Your task to perform on an android device: turn off sleep mode Image 0: 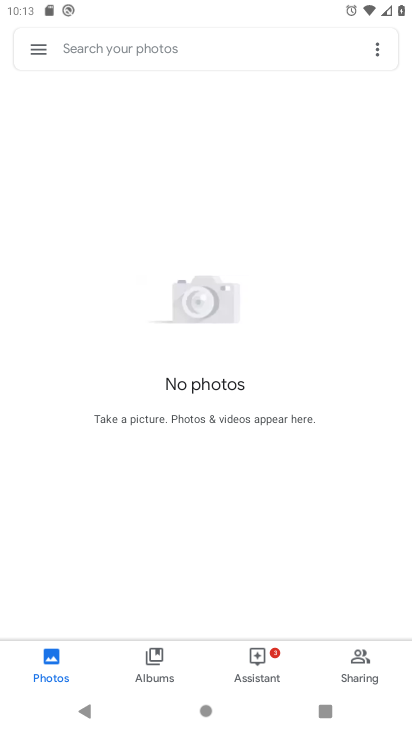
Step 0: press back button
Your task to perform on an android device: turn off sleep mode Image 1: 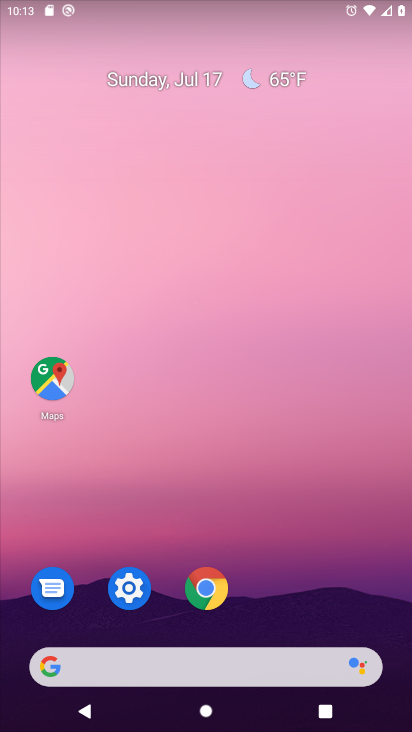
Step 1: drag from (263, 632) to (256, 72)
Your task to perform on an android device: turn off sleep mode Image 2: 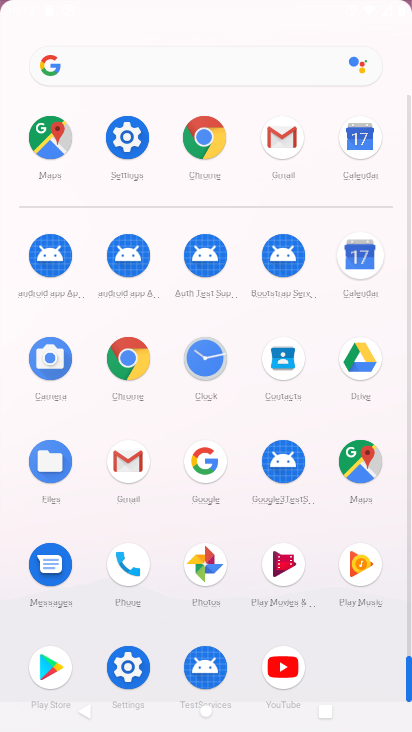
Step 2: drag from (162, 367) to (74, 68)
Your task to perform on an android device: turn off sleep mode Image 3: 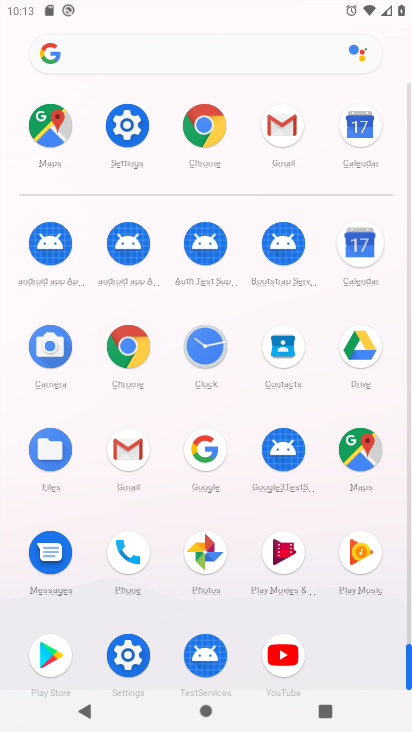
Step 3: click (126, 126)
Your task to perform on an android device: turn off sleep mode Image 4: 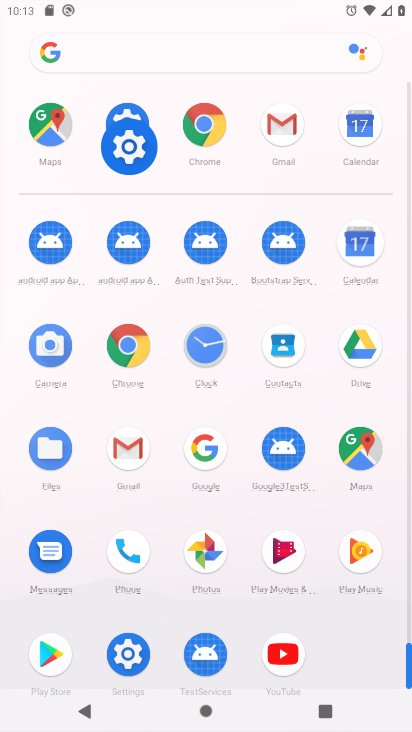
Step 4: click (126, 126)
Your task to perform on an android device: turn off sleep mode Image 5: 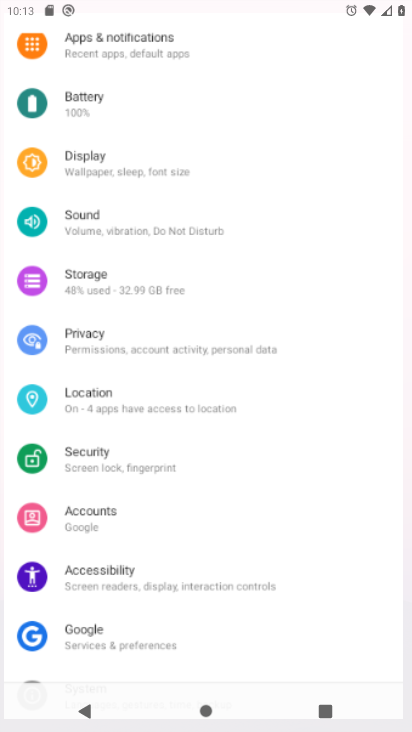
Step 5: click (127, 127)
Your task to perform on an android device: turn off sleep mode Image 6: 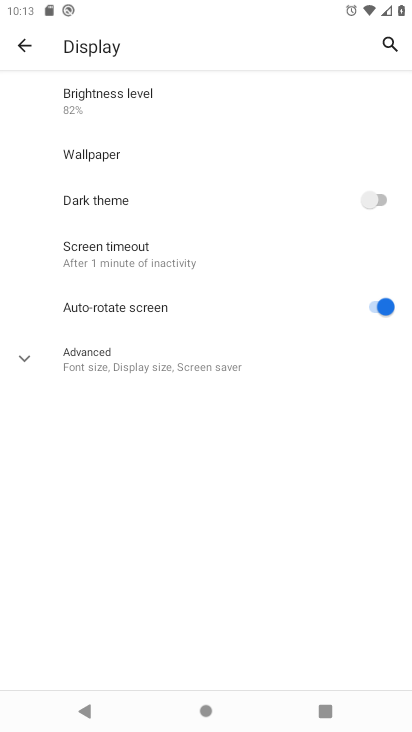
Step 6: click (18, 46)
Your task to perform on an android device: turn off sleep mode Image 7: 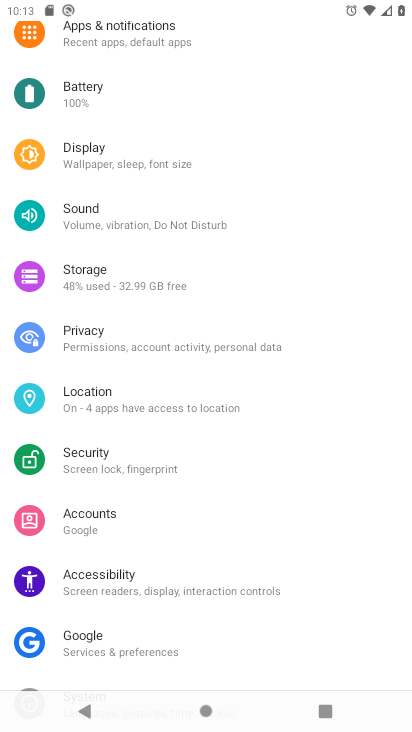
Step 7: click (111, 158)
Your task to perform on an android device: turn off sleep mode Image 8: 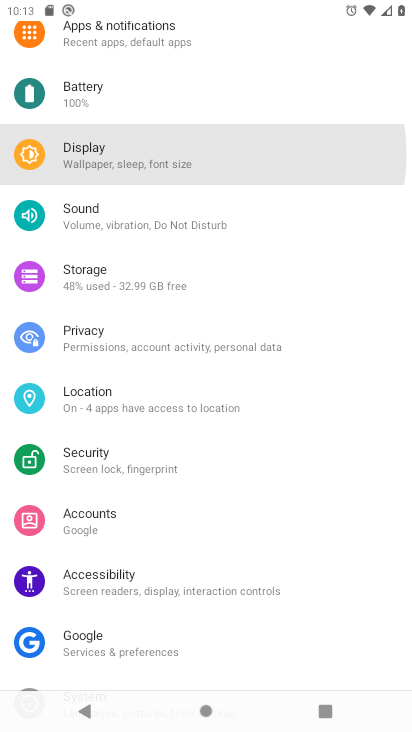
Step 8: click (110, 158)
Your task to perform on an android device: turn off sleep mode Image 9: 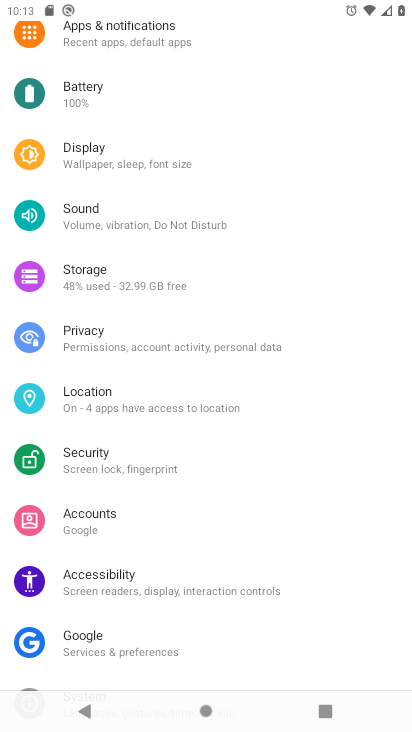
Step 9: click (110, 158)
Your task to perform on an android device: turn off sleep mode Image 10: 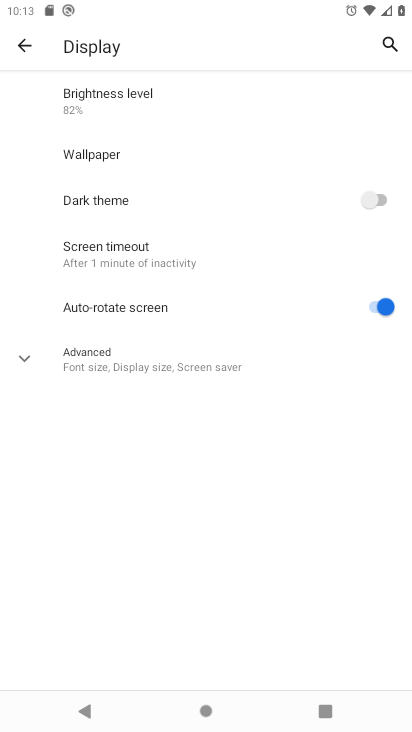
Step 10: click (20, 42)
Your task to perform on an android device: turn off sleep mode Image 11: 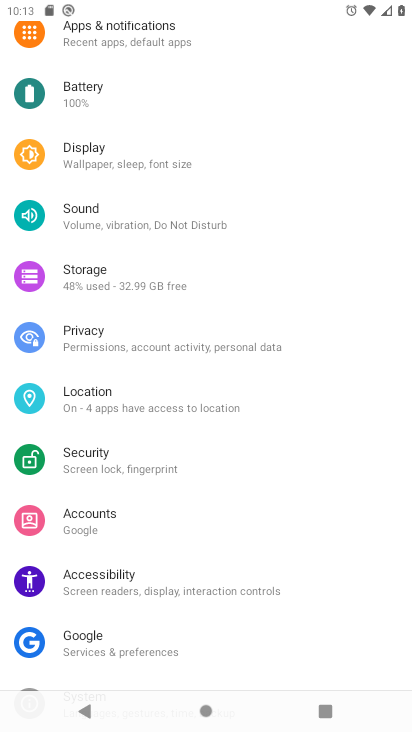
Step 11: click (90, 155)
Your task to perform on an android device: turn off sleep mode Image 12: 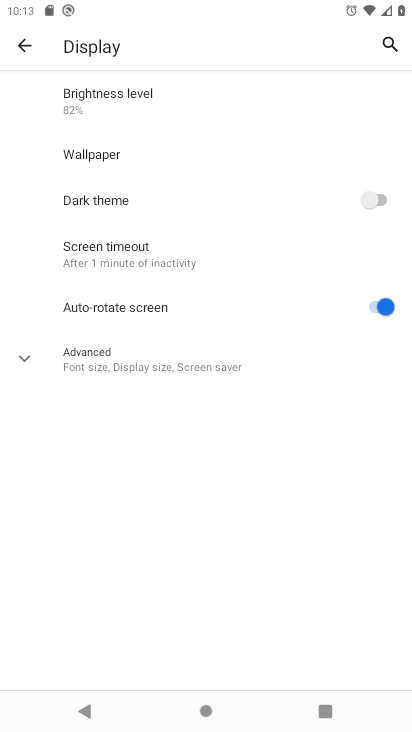
Step 12: click (26, 42)
Your task to perform on an android device: turn off sleep mode Image 13: 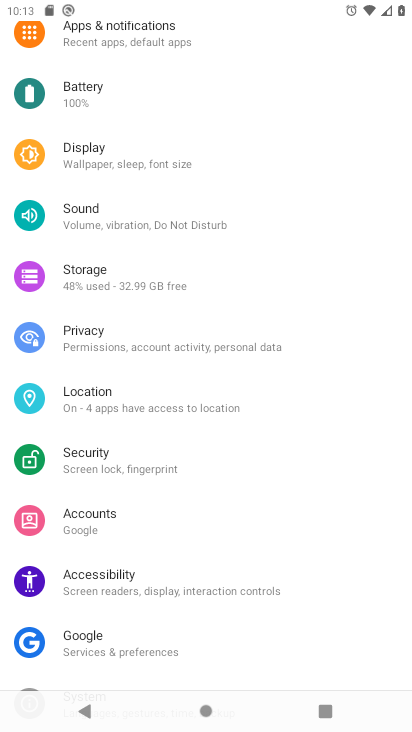
Step 13: click (105, 160)
Your task to perform on an android device: turn off sleep mode Image 14: 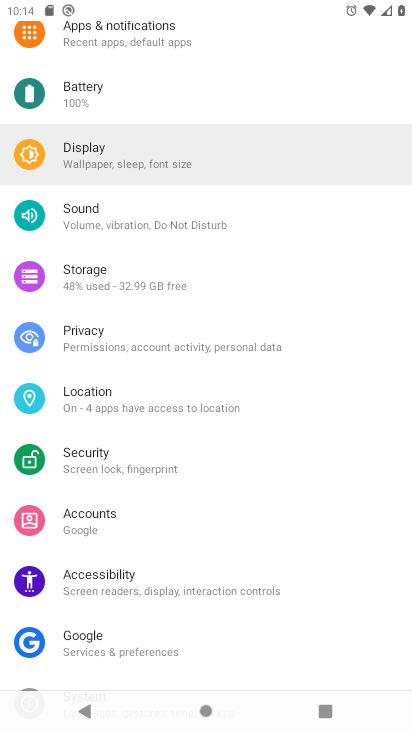
Step 14: click (105, 159)
Your task to perform on an android device: turn off sleep mode Image 15: 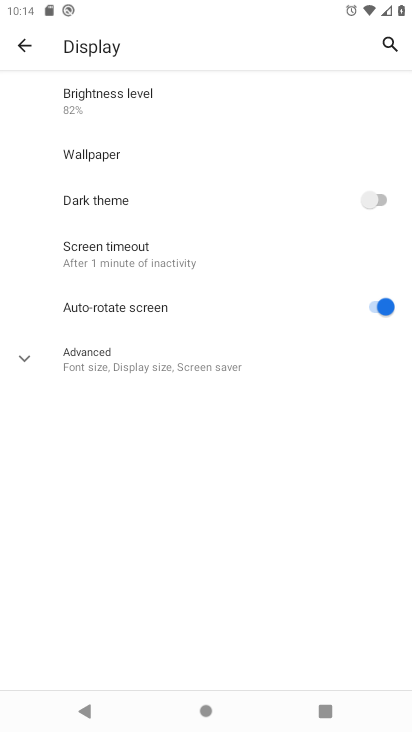
Step 15: click (126, 253)
Your task to perform on an android device: turn off sleep mode Image 16: 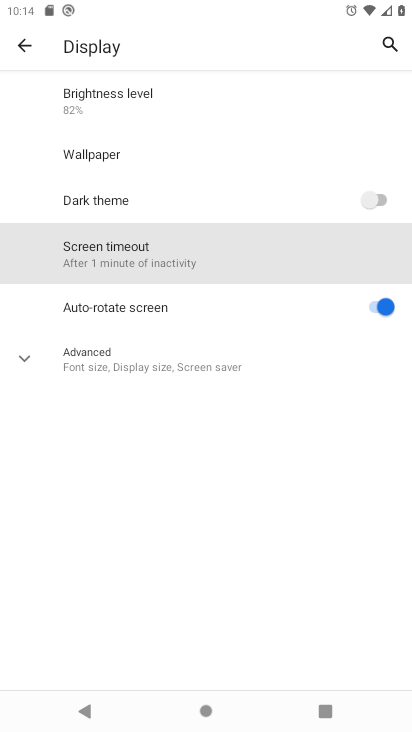
Step 16: click (127, 252)
Your task to perform on an android device: turn off sleep mode Image 17: 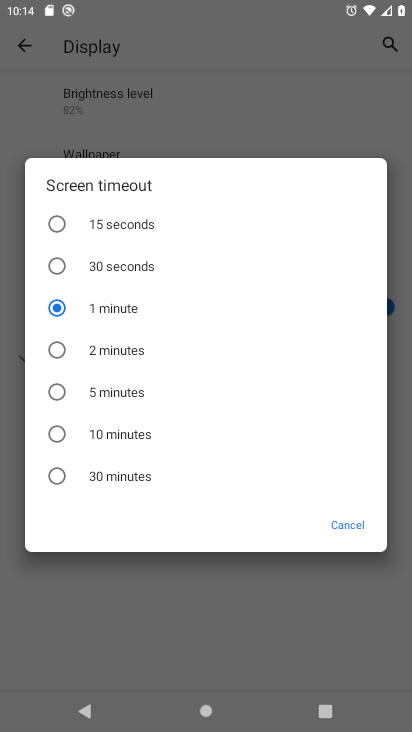
Step 17: click (51, 342)
Your task to perform on an android device: turn off sleep mode Image 18: 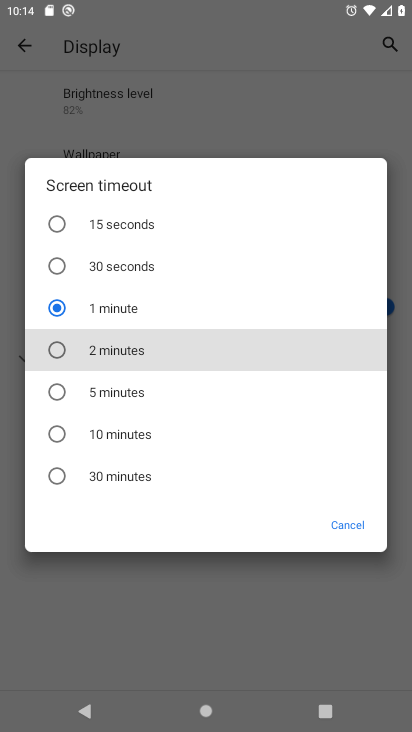
Step 18: click (51, 342)
Your task to perform on an android device: turn off sleep mode Image 19: 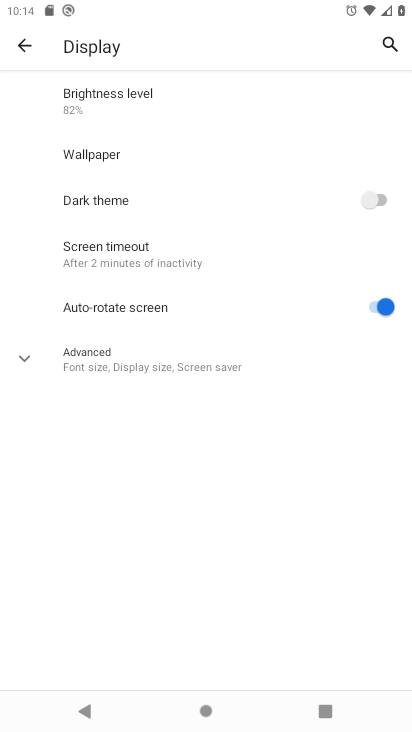
Step 19: task complete